Your task to perform on an android device: move a message to another label in the gmail app Image 0: 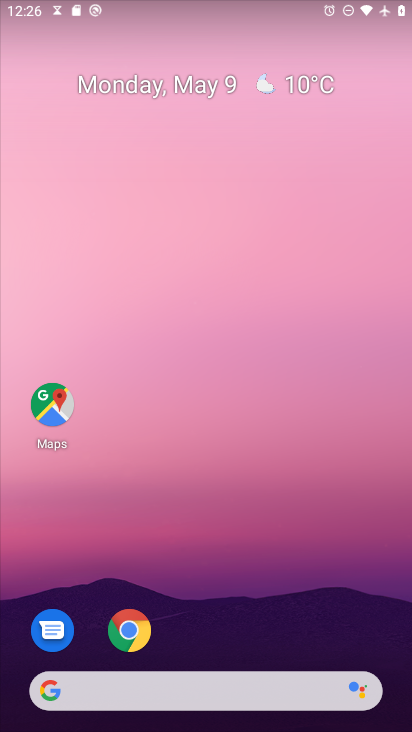
Step 0: drag from (179, 703) to (331, 122)
Your task to perform on an android device: move a message to another label in the gmail app Image 1: 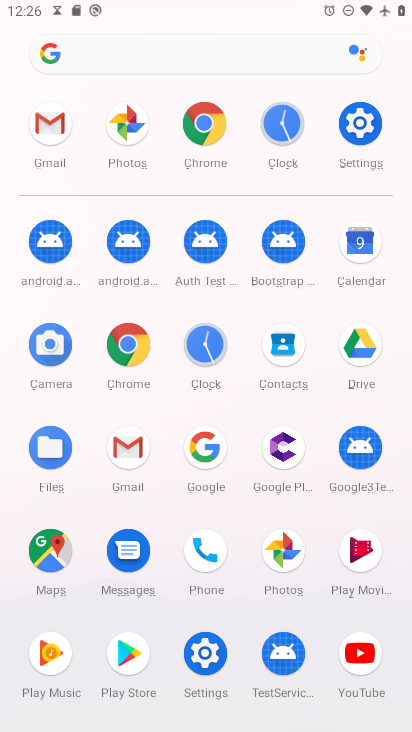
Step 1: click (136, 450)
Your task to perform on an android device: move a message to another label in the gmail app Image 2: 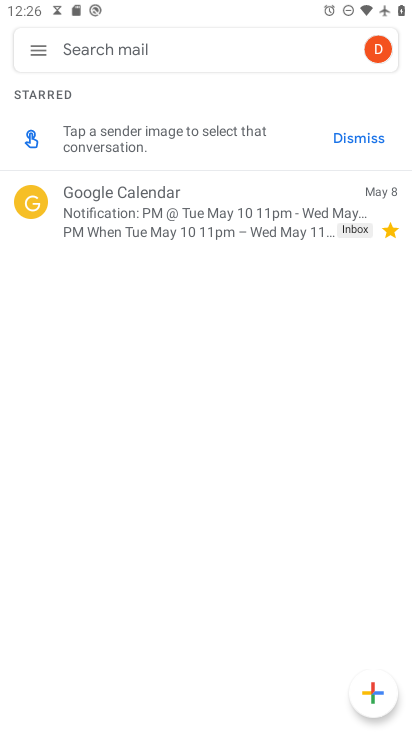
Step 2: click (177, 223)
Your task to perform on an android device: move a message to another label in the gmail app Image 3: 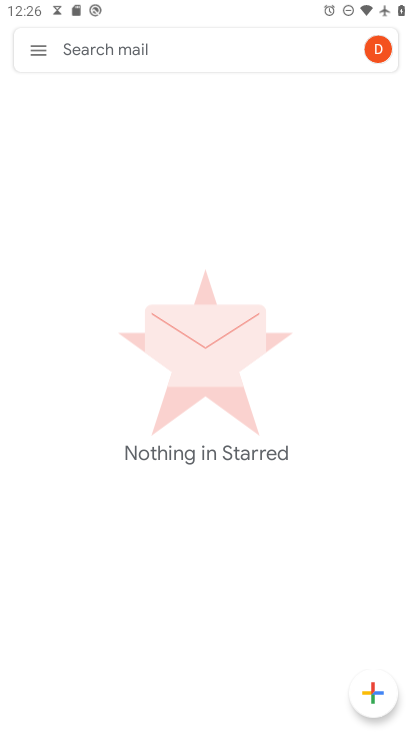
Step 3: click (42, 55)
Your task to perform on an android device: move a message to another label in the gmail app Image 4: 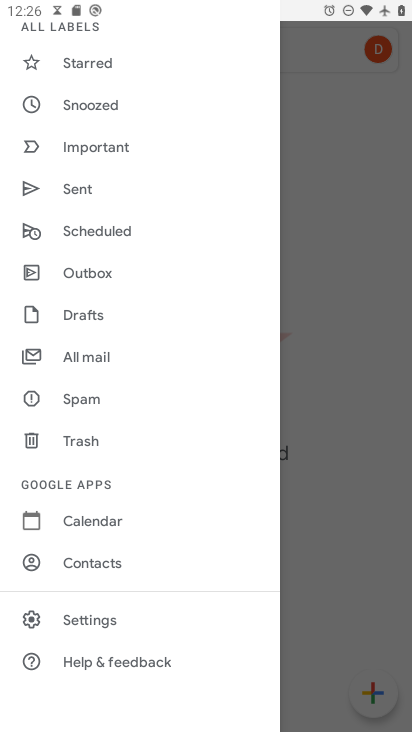
Step 4: click (103, 354)
Your task to perform on an android device: move a message to another label in the gmail app Image 5: 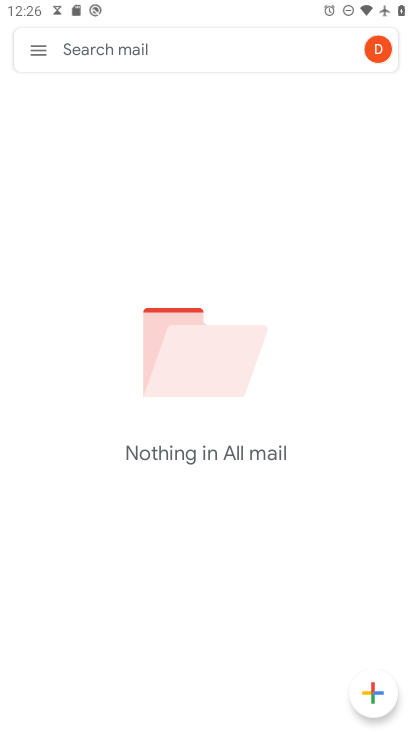
Step 5: task complete